Your task to perform on an android device: set the stopwatch Image 0: 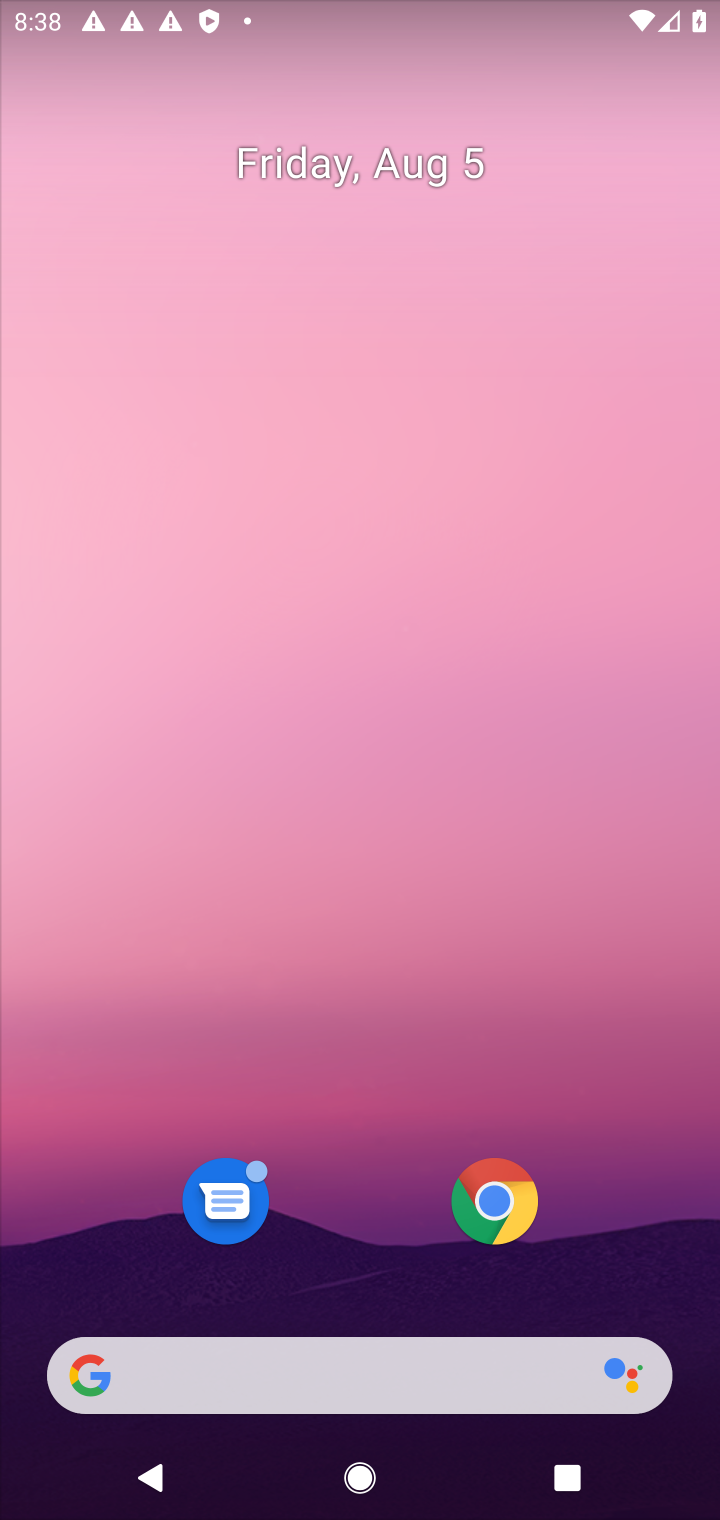
Step 0: drag from (365, 963) to (365, 670)
Your task to perform on an android device: set the stopwatch Image 1: 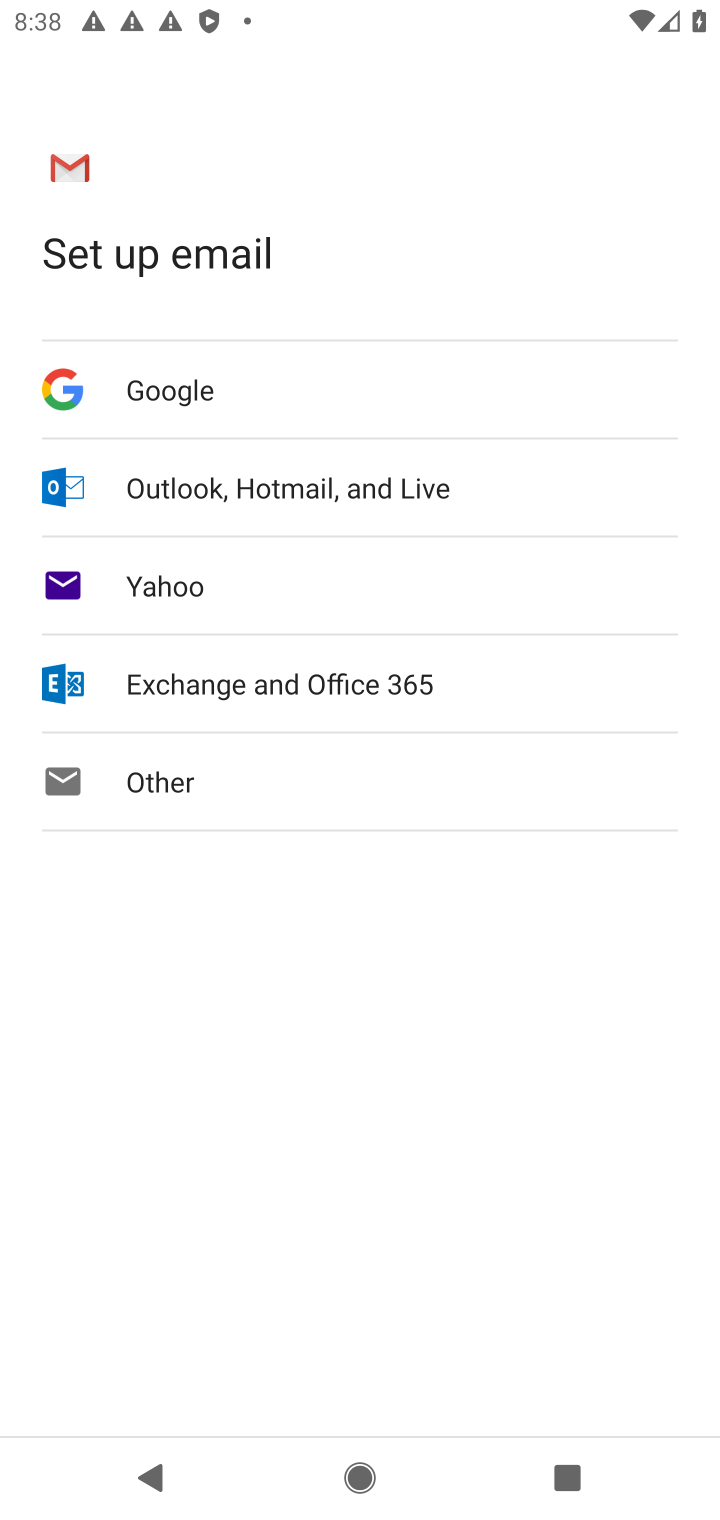
Step 1: drag from (395, 1193) to (491, 517)
Your task to perform on an android device: set the stopwatch Image 2: 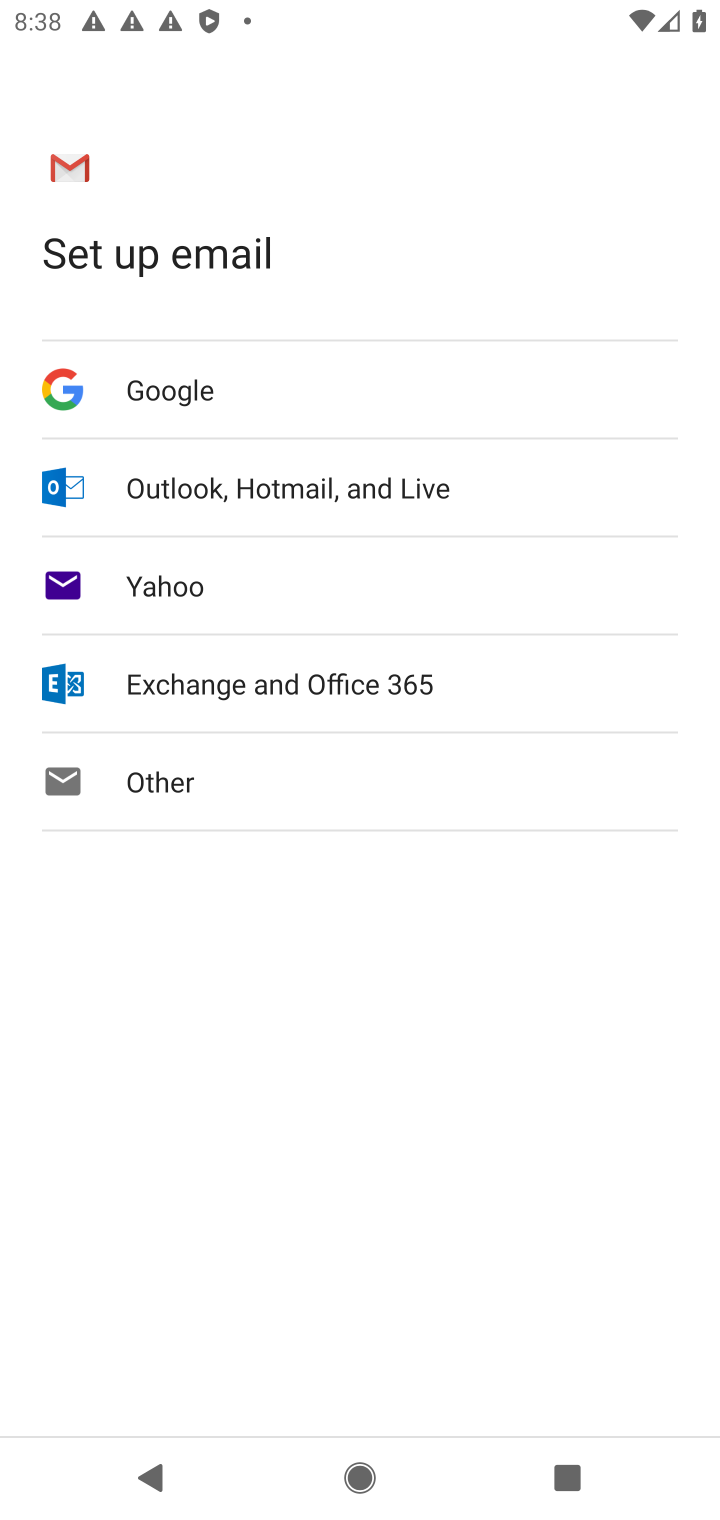
Step 2: press home button
Your task to perform on an android device: set the stopwatch Image 3: 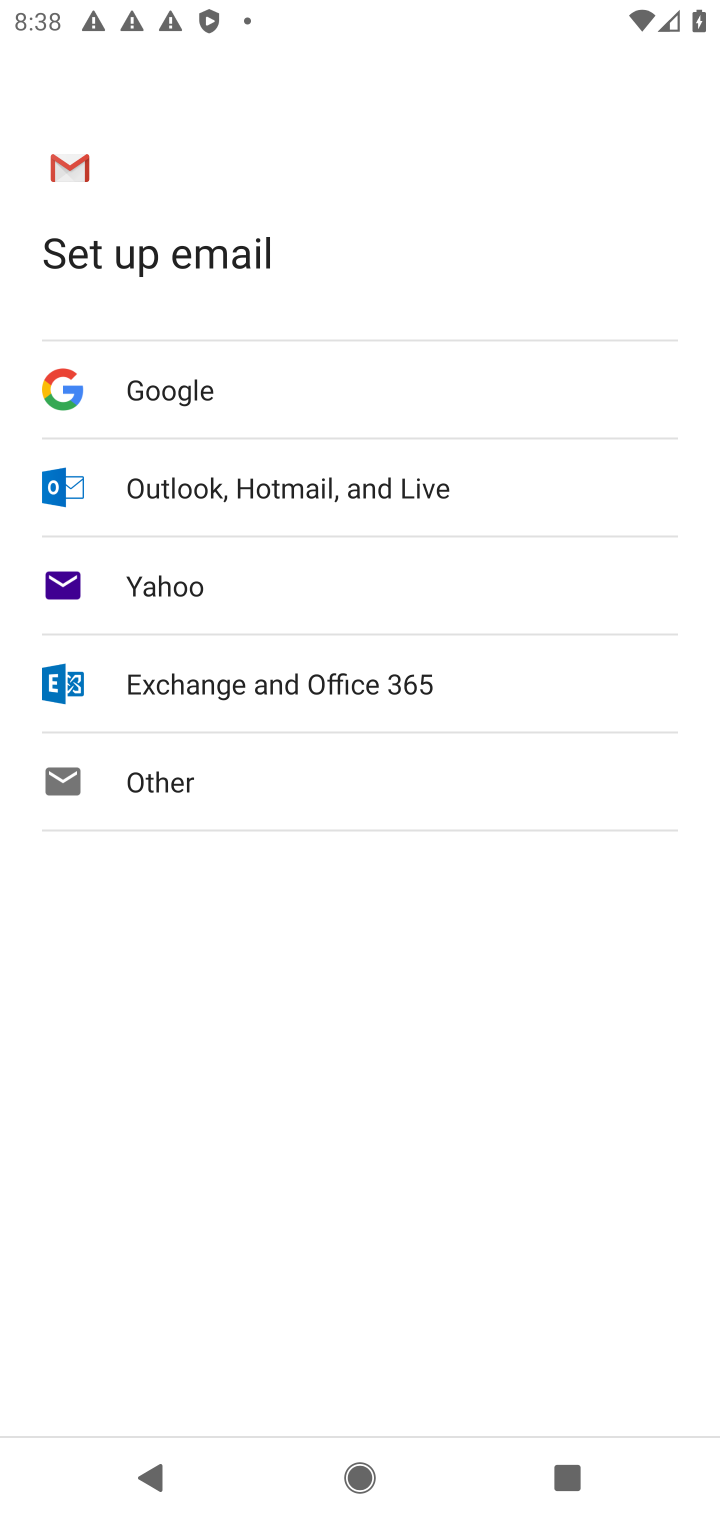
Step 3: click (438, 306)
Your task to perform on an android device: set the stopwatch Image 4: 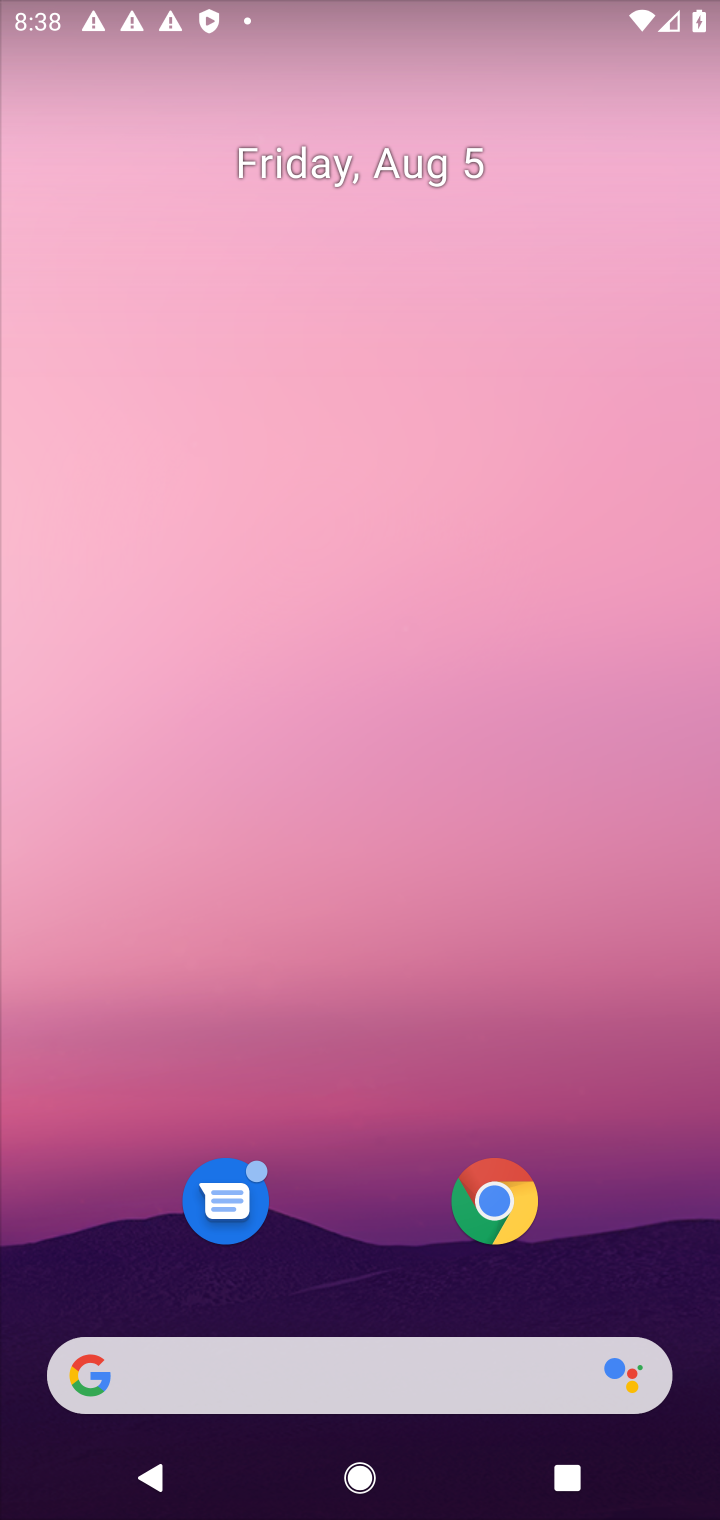
Step 4: drag from (361, 1240) to (361, 134)
Your task to perform on an android device: set the stopwatch Image 5: 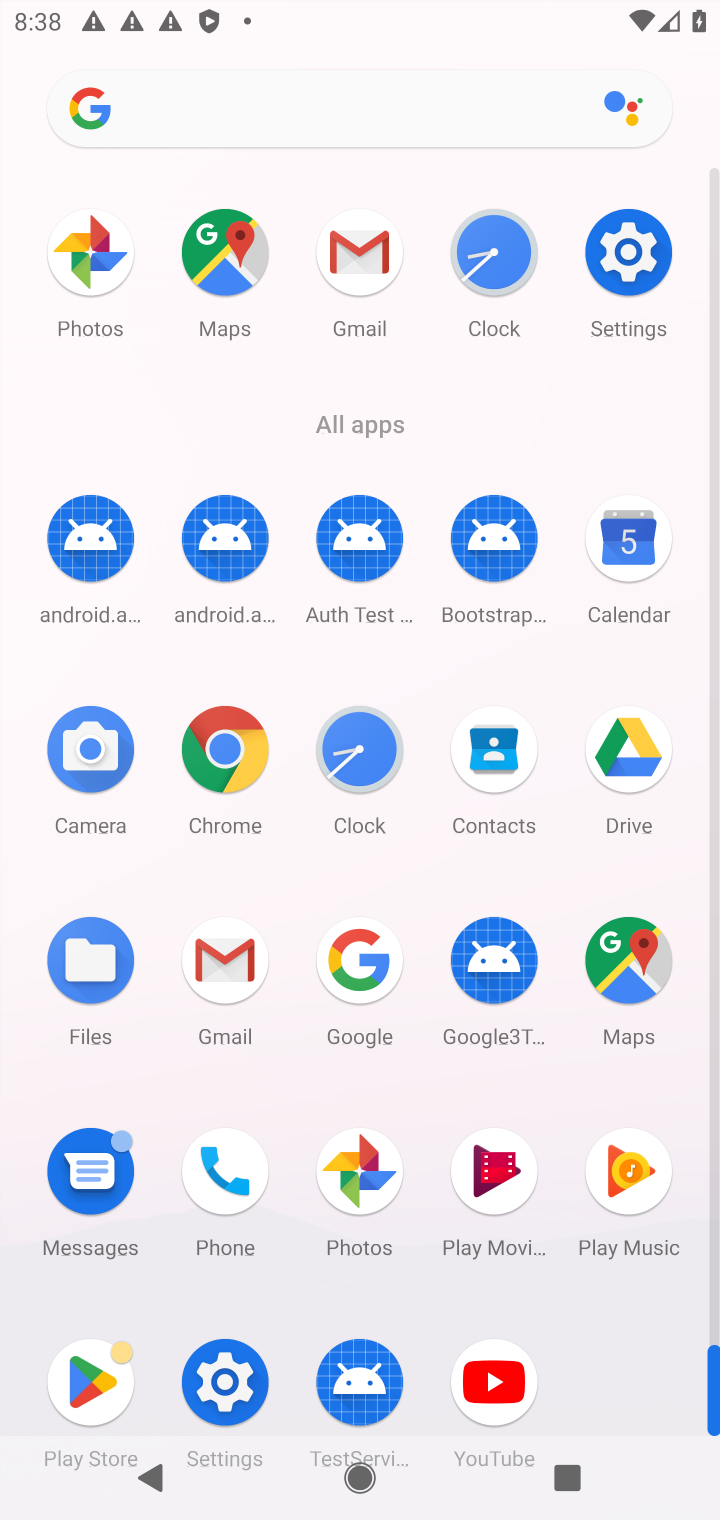
Step 5: click (329, 750)
Your task to perform on an android device: set the stopwatch Image 6: 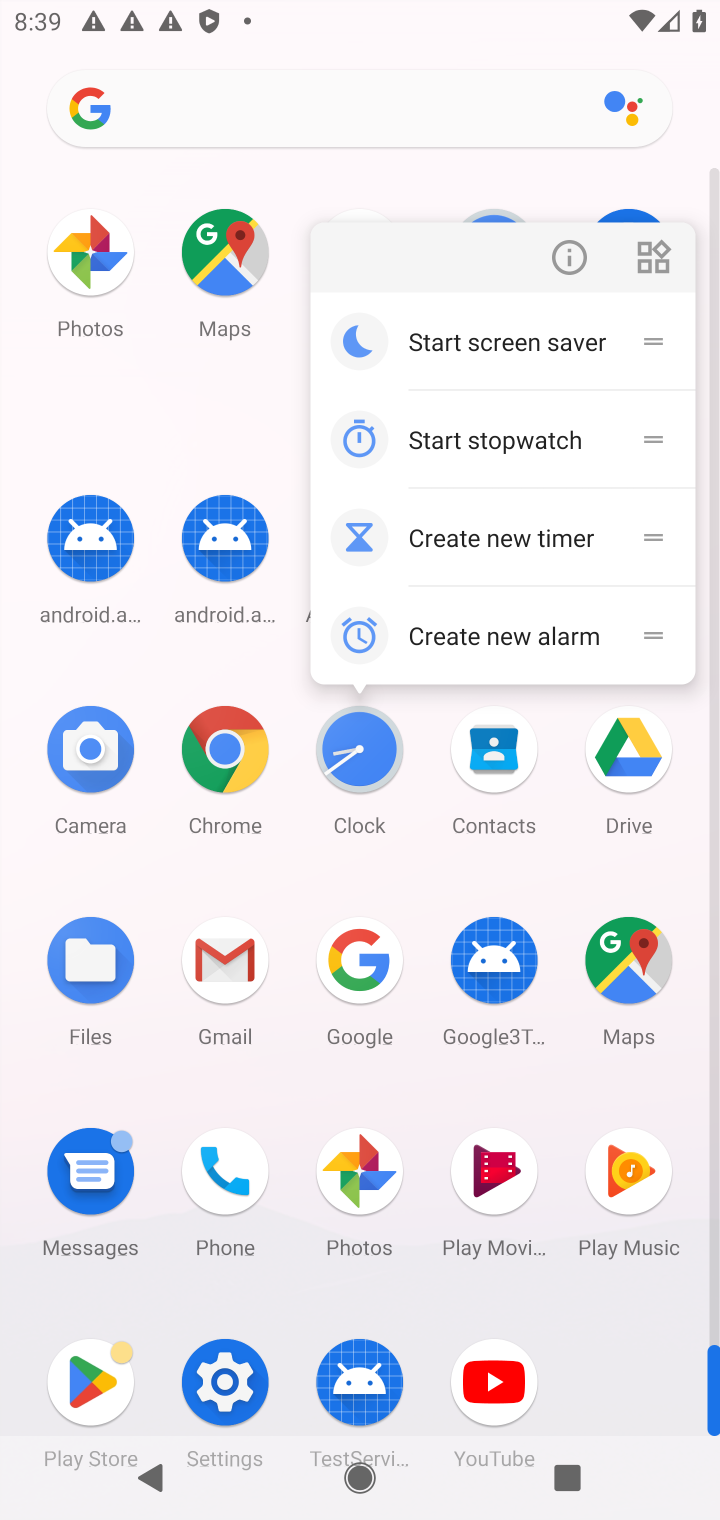
Step 6: click (564, 258)
Your task to perform on an android device: set the stopwatch Image 7: 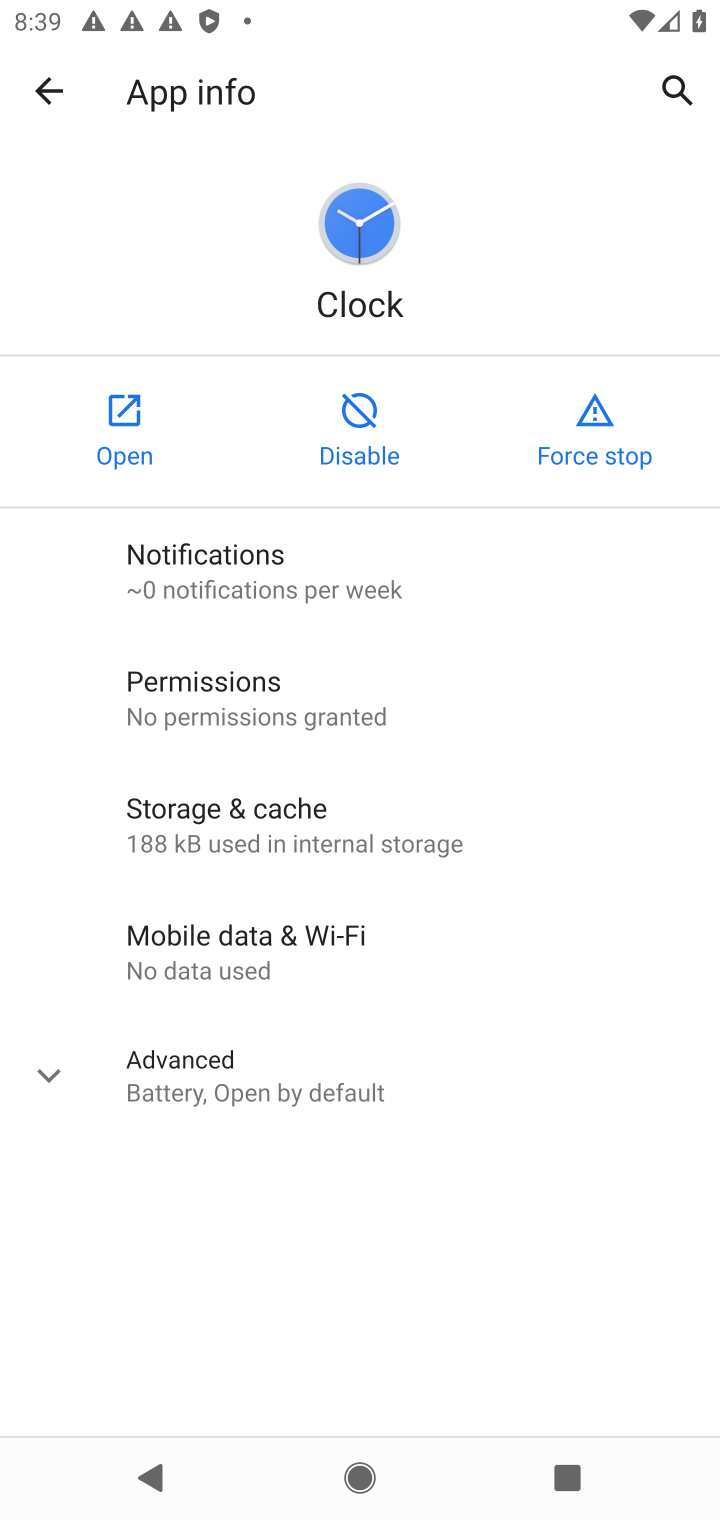
Step 7: click (115, 430)
Your task to perform on an android device: set the stopwatch Image 8: 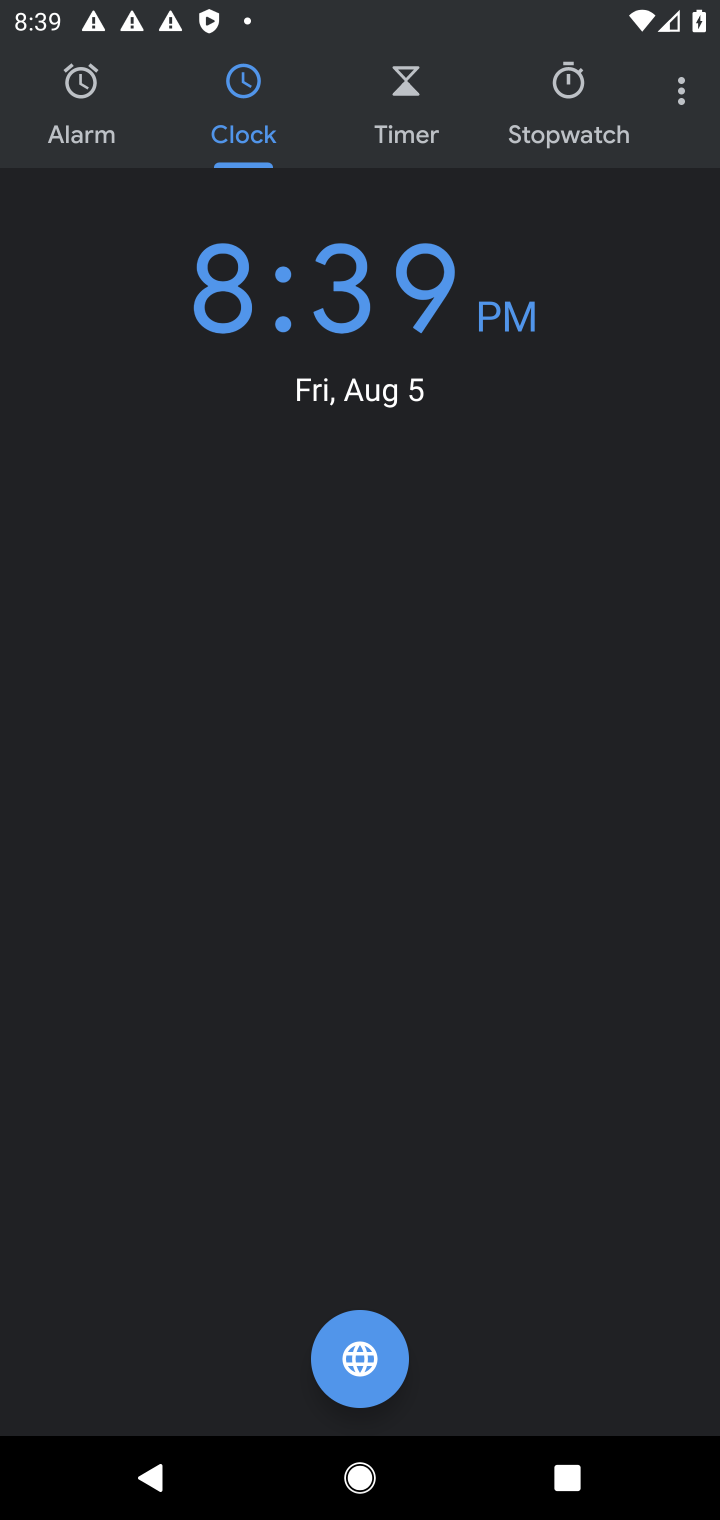
Step 8: click (567, 105)
Your task to perform on an android device: set the stopwatch Image 9: 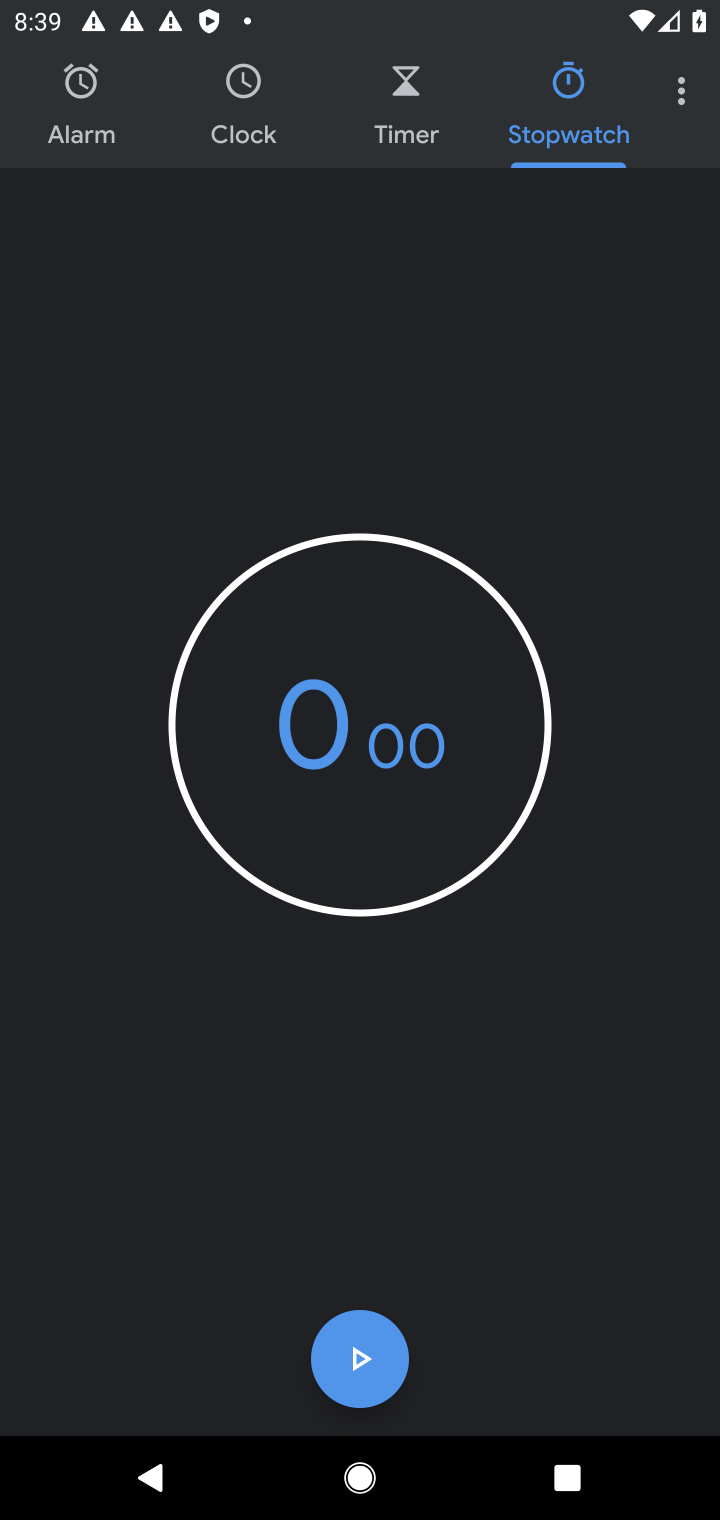
Step 9: click (352, 1364)
Your task to perform on an android device: set the stopwatch Image 10: 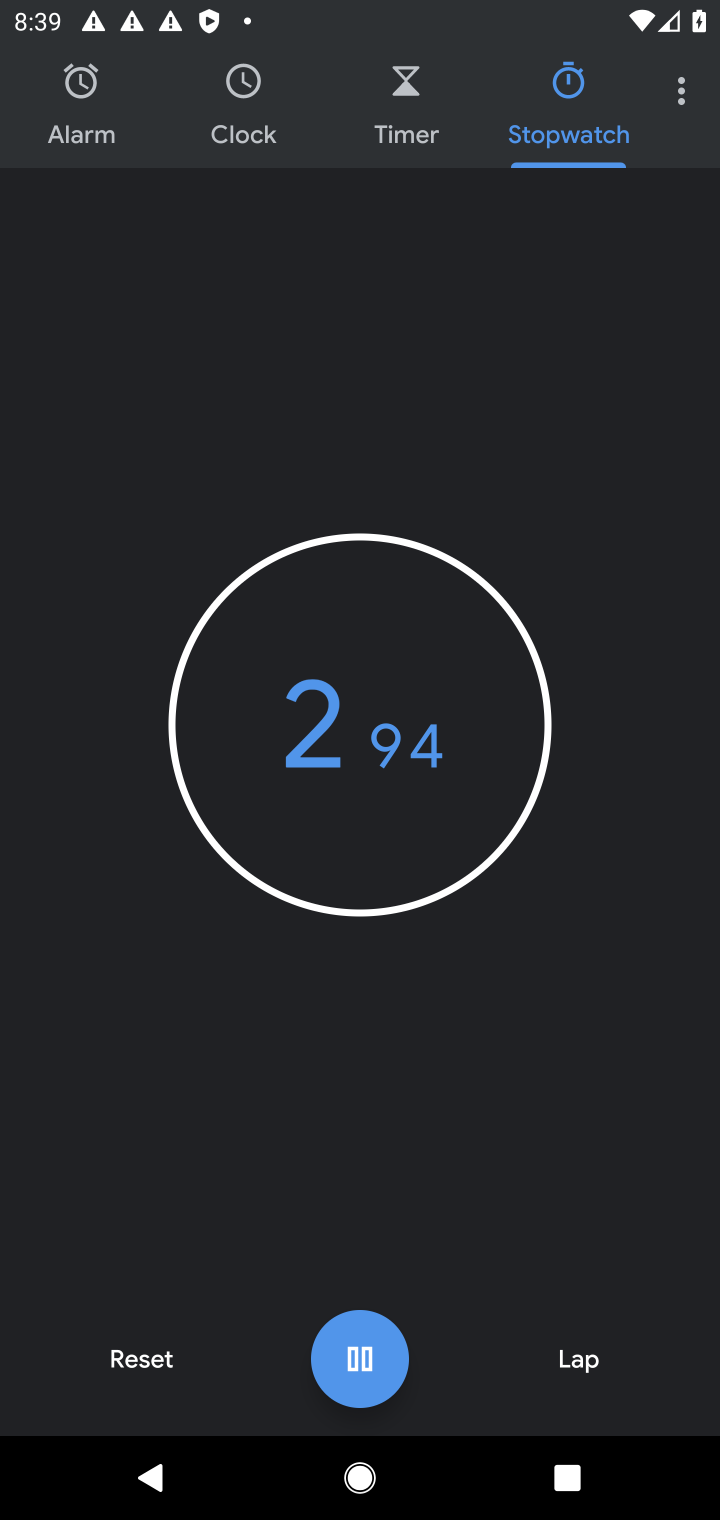
Step 10: task complete